Your task to perform on an android device: toggle location history Image 0: 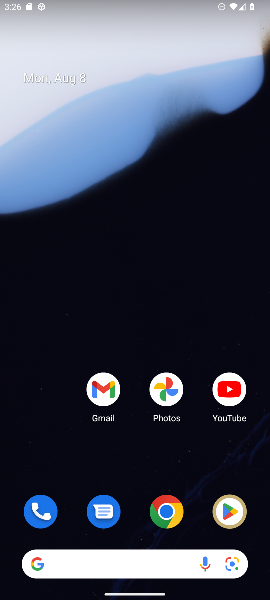
Step 0: drag from (201, 455) to (179, 16)
Your task to perform on an android device: toggle location history Image 1: 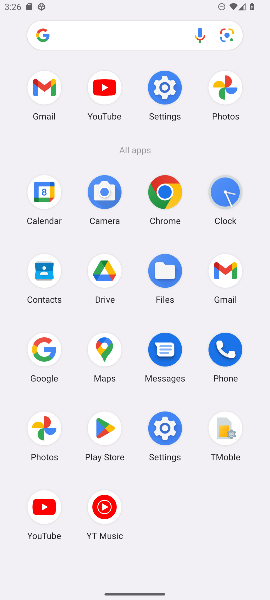
Step 1: click (167, 426)
Your task to perform on an android device: toggle location history Image 2: 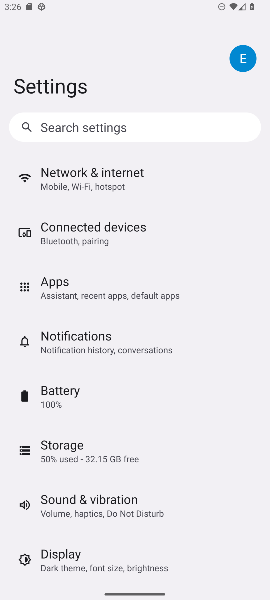
Step 2: drag from (165, 496) to (145, 193)
Your task to perform on an android device: toggle location history Image 3: 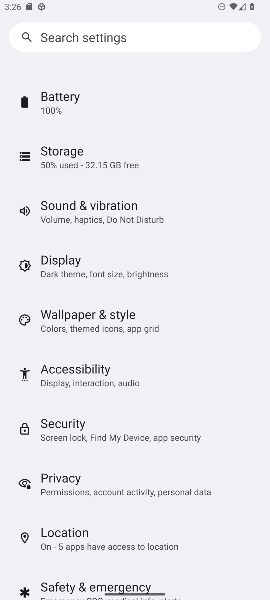
Step 3: click (60, 548)
Your task to perform on an android device: toggle location history Image 4: 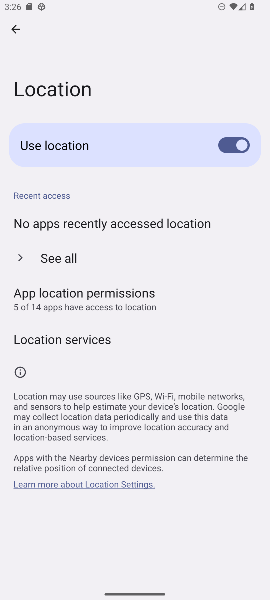
Step 4: click (67, 342)
Your task to perform on an android device: toggle location history Image 5: 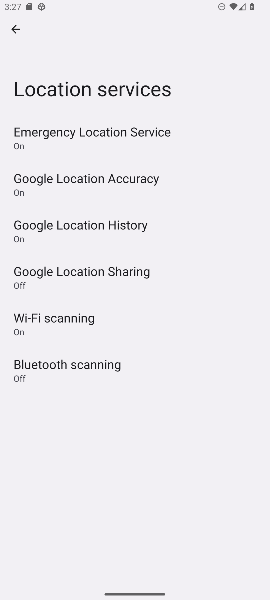
Step 5: click (124, 228)
Your task to perform on an android device: toggle location history Image 6: 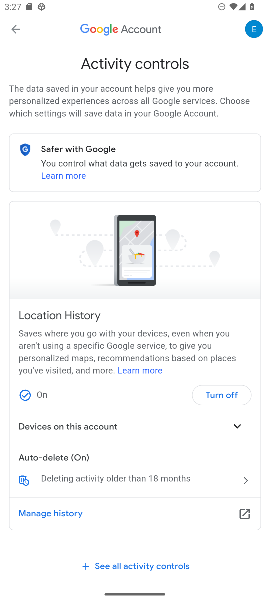
Step 6: click (241, 391)
Your task to perform on an android device: toggle location history Image 7: 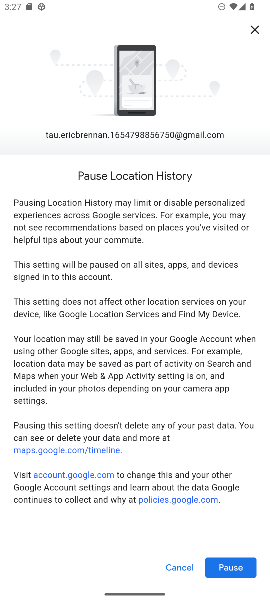
Step 7: click (230, 567)
Your task to perform on an android device: toggle location history Image 8: 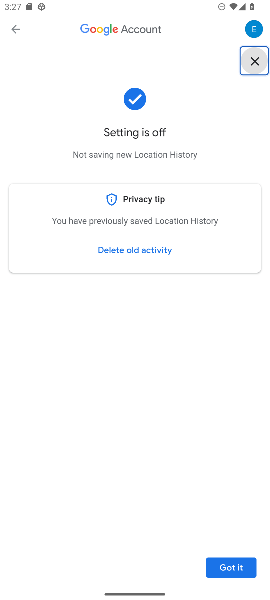
Step 8: task complete